Your task to perform on an android device: Open internet settings Image 0: 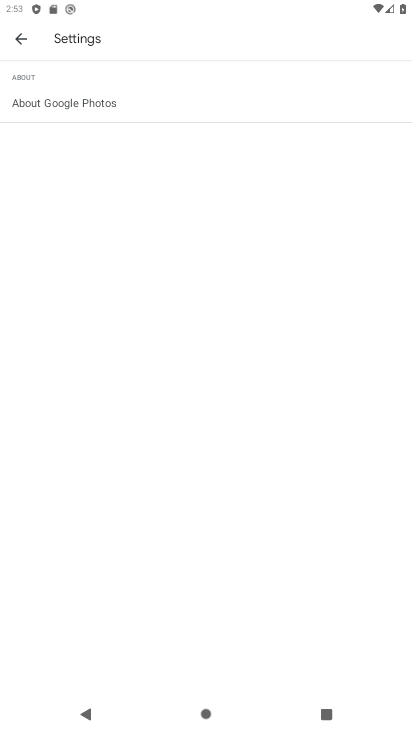
Step 0: press home button
Your task to perform on an android device: Open internet settings Image 1: 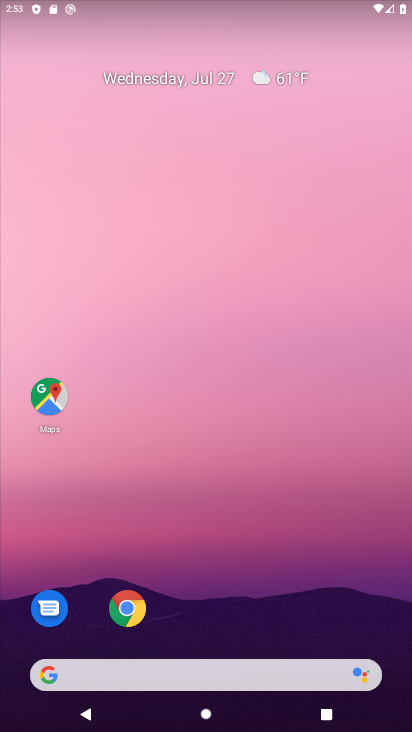
Step 1: drag from (265, 585) to (209, 36)
Your task to perform on an android device: Open internet settings Image 2: 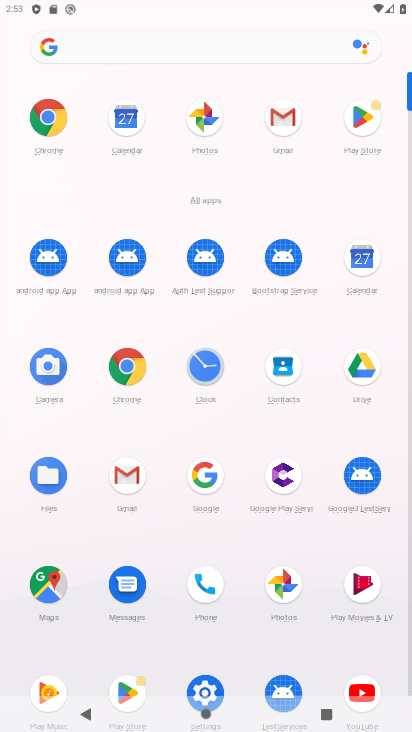
Step 2: click (200, 685)
Your task to perform on an android device: Open internet settings Image 3: 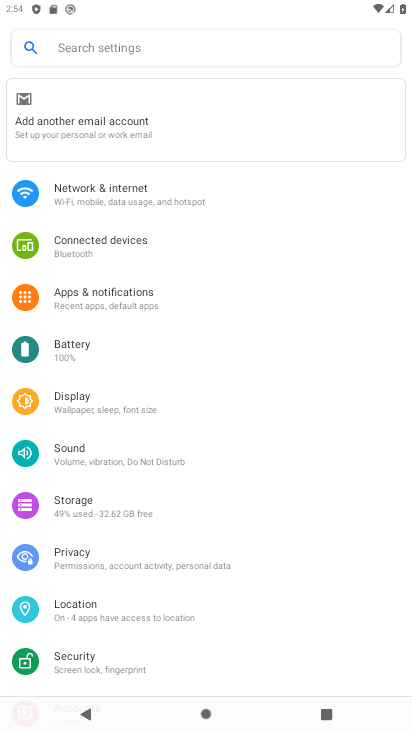
Step 3: click (155, 186)
Your task to perform on an android device: Open internet settings Image 4: 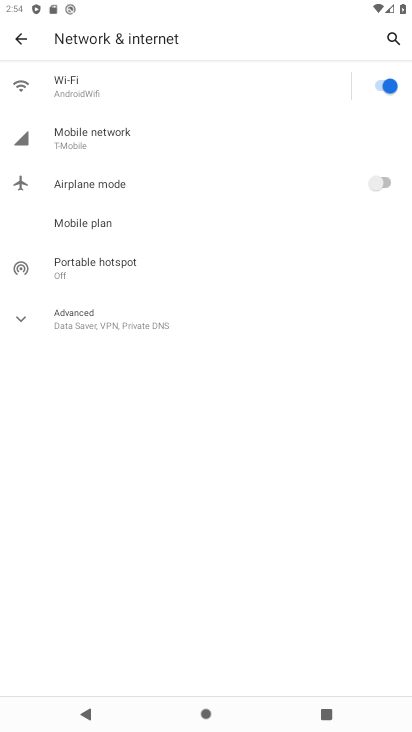
Step 4: click (185, 128)
Your task to perform on an android device: Open internet settings Image 5: 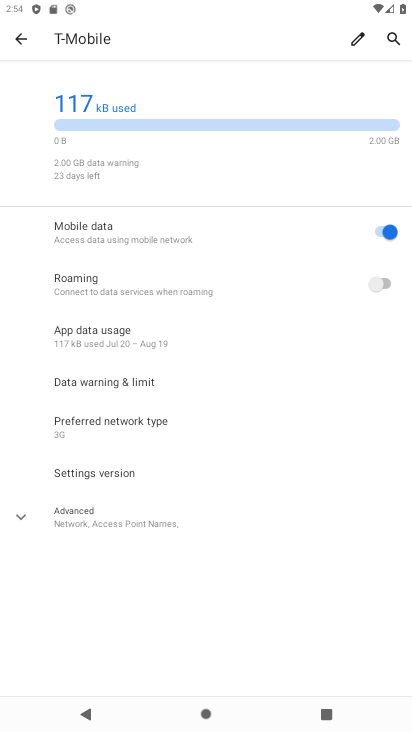
Step 5: task complete